Your task to perform on an android device: open a bookmark in the chrome app Image 0: 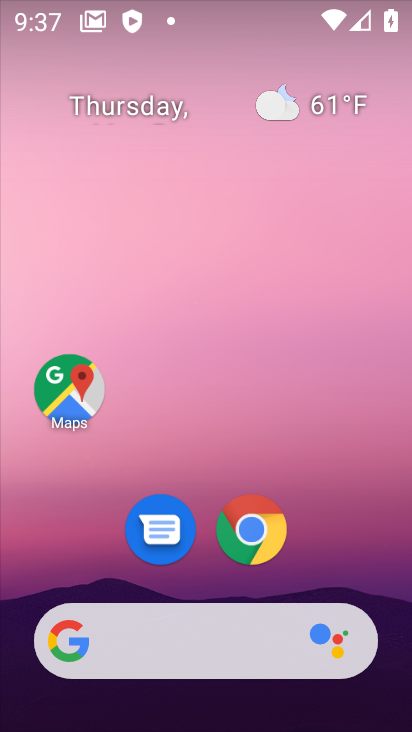
Step 0: click (270, 528)
Your task to perform on an android device: open a bookmark in the chrome app Image 1: 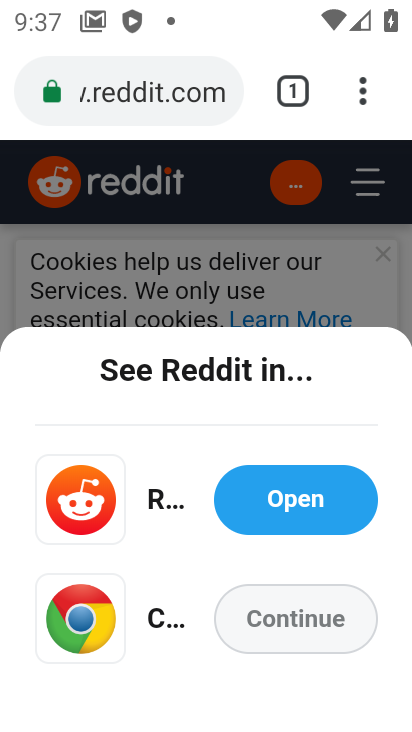
Step 1: press back button
Your task to perform on an android device: open a bookmark in the chrome app Image 2: 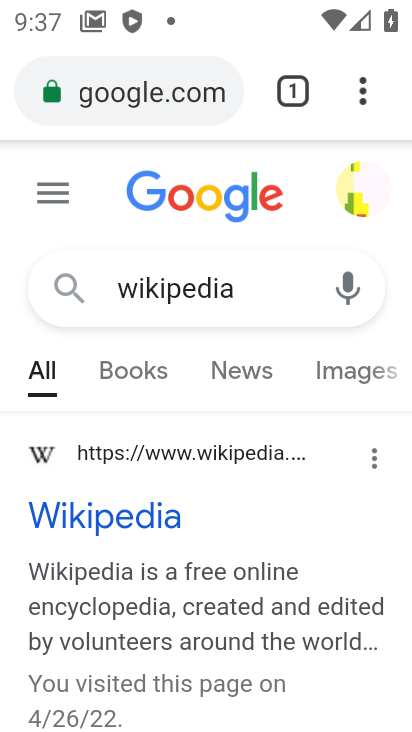
Step 2: click (356, 86)
Your task to perform on an android device: open a bookmark in the chrome app Image 3: 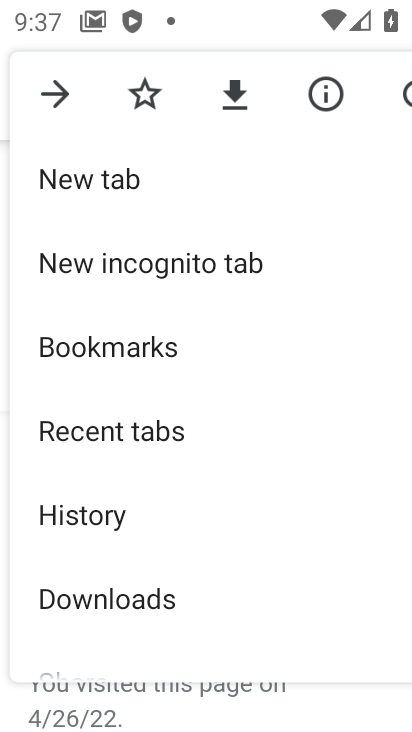
Step 3: click (156, 356)
Your task to perform on an android device: open a bookmark in the chrome app Image 4: 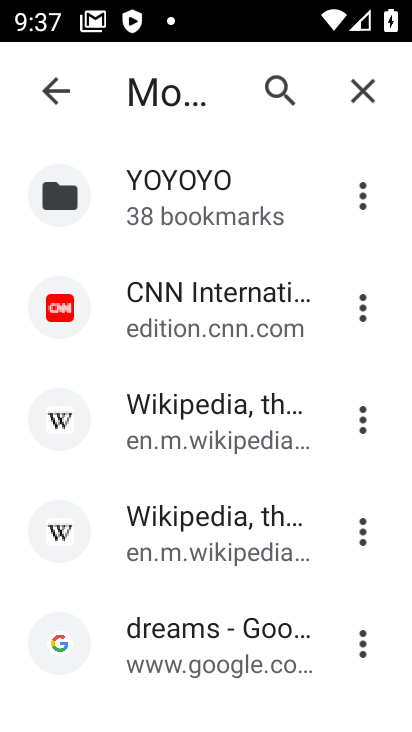
Step 4: click (215, 297)
Your task to perform on an android device: open a bookmark in the chrome app Image 5: 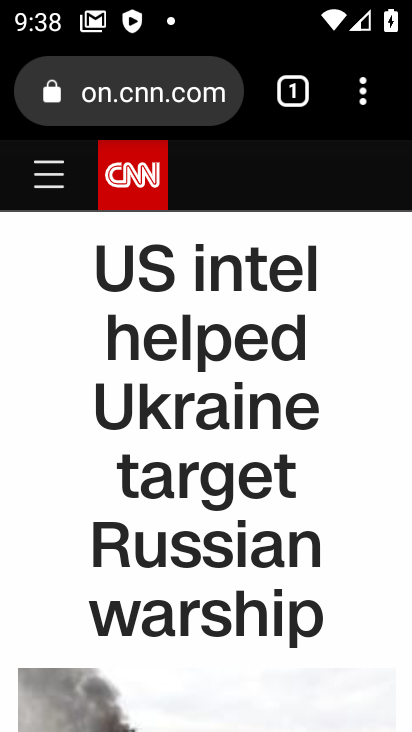
Step 5: task complete